Your task to perform on an android device: remove spam from my inbox in the gmail app Image 0: 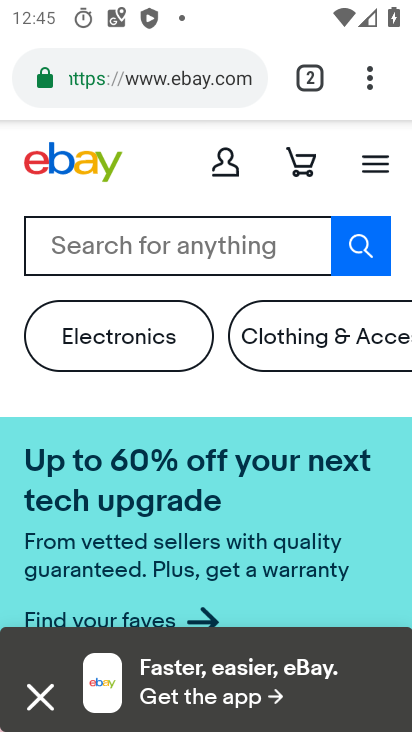
Step 0: press back button
Your task to perform on an android device: remove spam from my inbox in the gmail app Image 1: 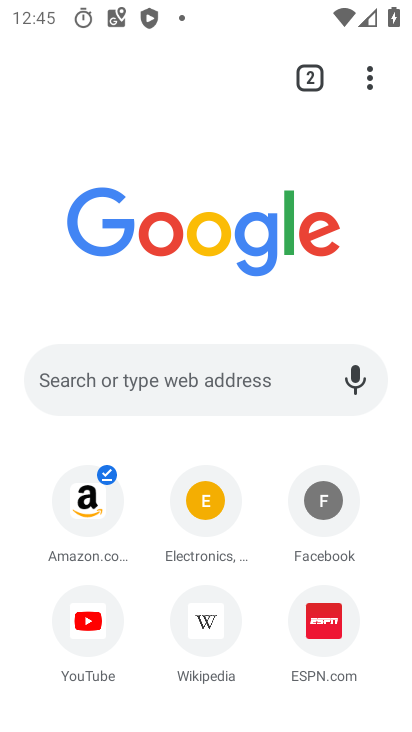
Step 1: press back button
Your task to perform on an android device: remove spam from my inbox in the gmail app Image 2: 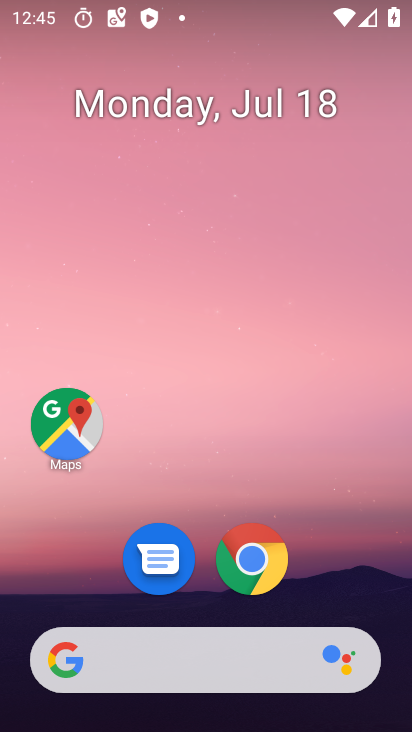
Step 2: drag from (66, 585) to (240, 3)
Your task to perform on an android device: remove spam from my inbox in the gmail app Image 3: 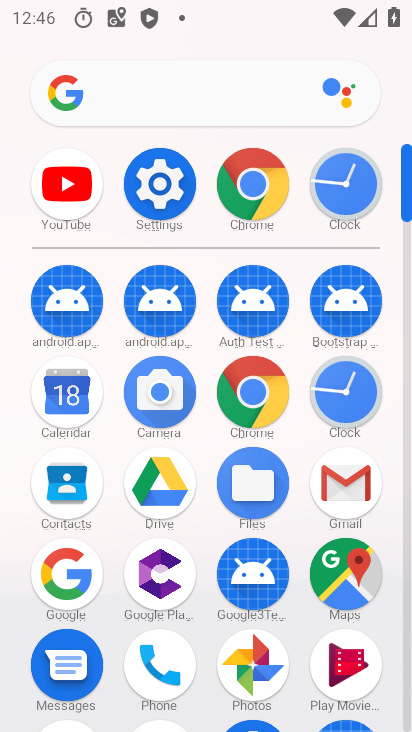
Step 3: click (345, 467)
Your task to perform on an android device: remove spam from my inbox in the gmail app Image 4: 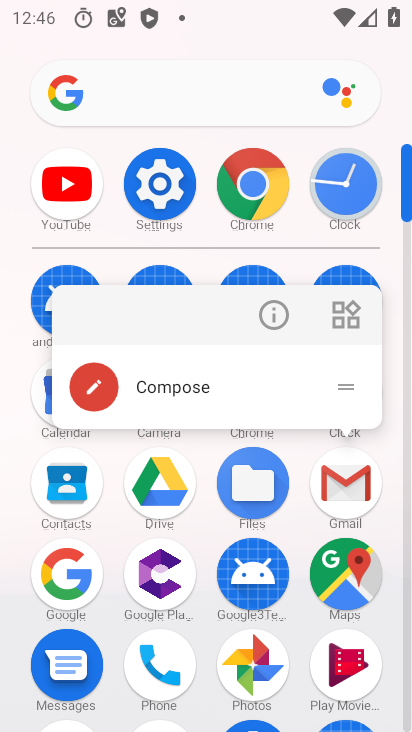
Step 4: click (342, 482)
Your task to perform on an android device: remove spam from my inbox in the gmail app Image 5: 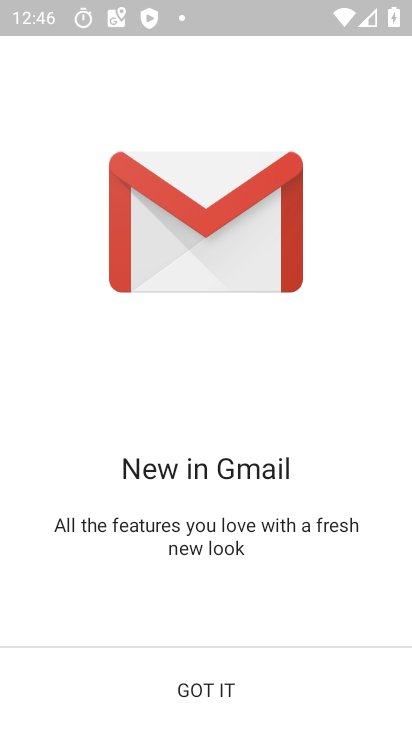
Step 5: click (185, 684)
Your task to perform on an android device: remove spam from my inbox in the gmail app Image 6: 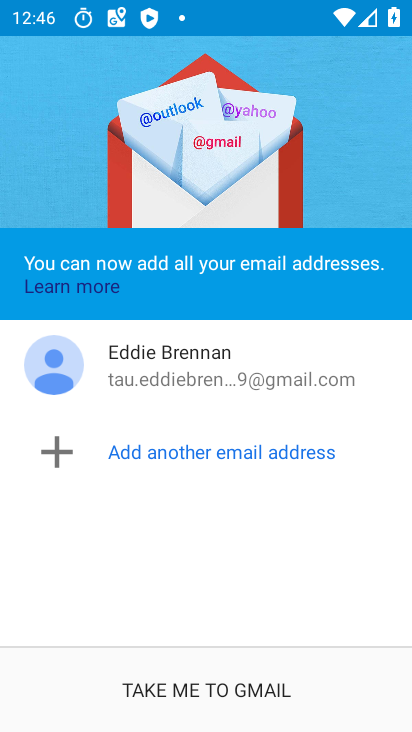
Step 6: click (173, 688)
Your task to perform on an android device: remove spam from my inbox in the gmail app Image 7: 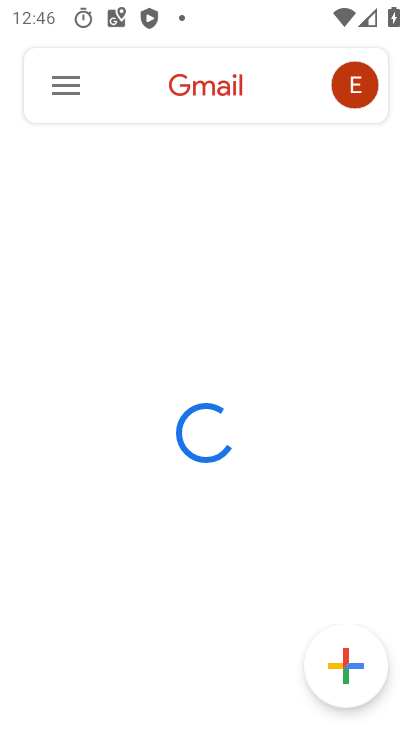
Step 7: click (66, 82)
Your task to perform on an android device: remove spam from my inbox in the gmail app Image 8: 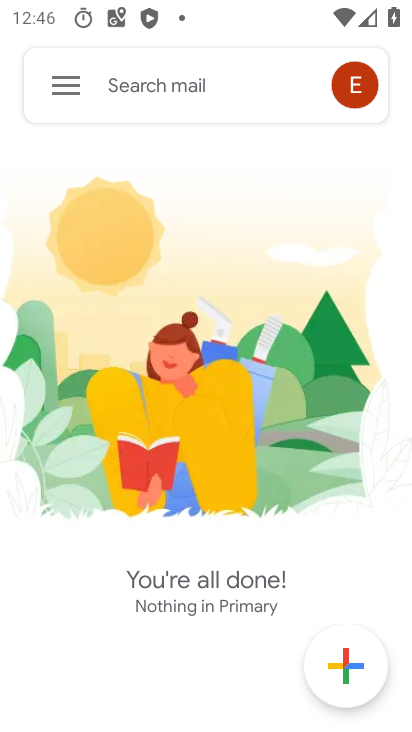
Step 8: click (63, 90)
Your task to perform on an android device: remove spam from my inbox in the gmail app Image 9: 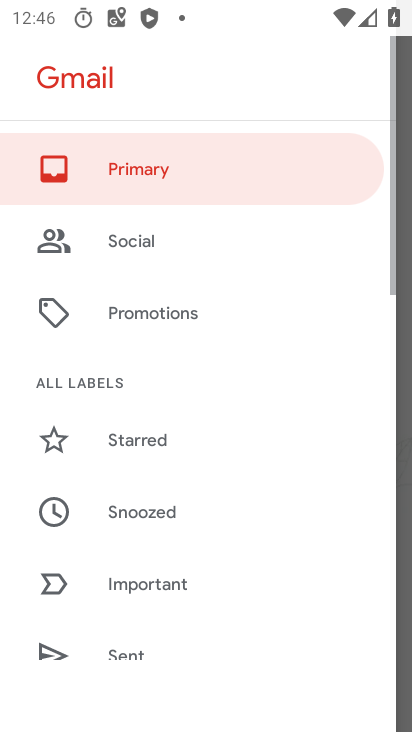
Step 9: drag from (190, 652) to (261, 279)
Your task to perform on an android device: remove spam from my inbox in the gmail app Image 10: 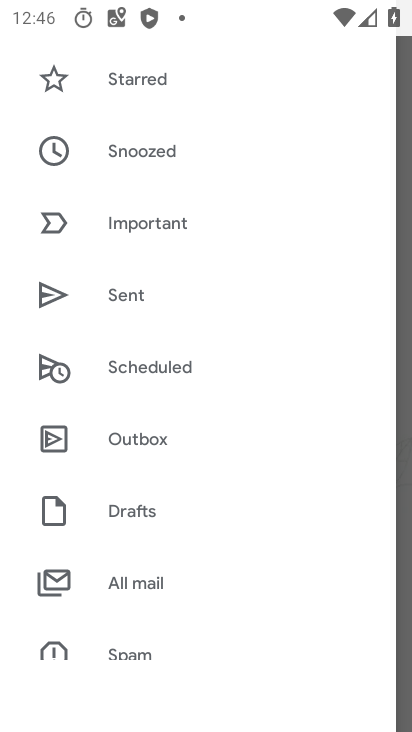
Step 10: click (139, 638)
Your task to perform on an android device: remove spam from my inbox in the gmail app Image 11: 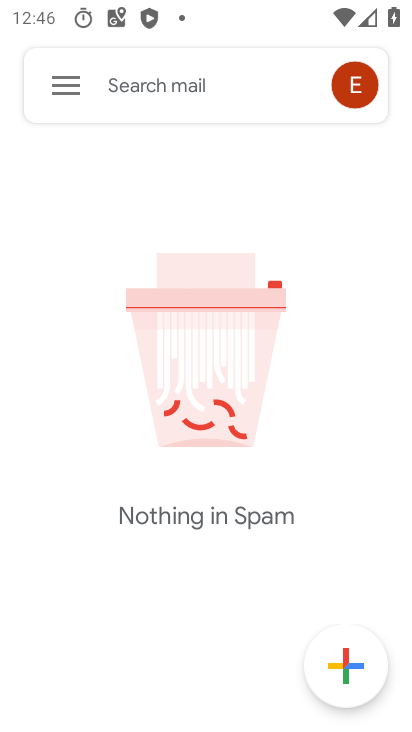
Step 11: task complete